Your task to perform on an android device: What's the weather going to be this weekend? Image 0: 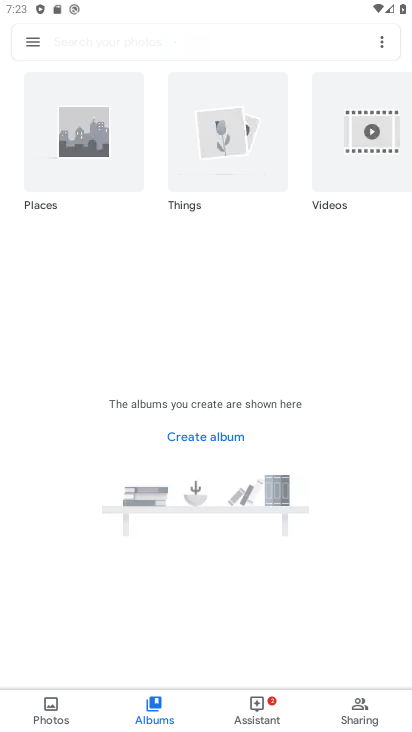
Step 0: press home button
Your task to perform on an android device: What's the weather going to be this weekend? Image 1: 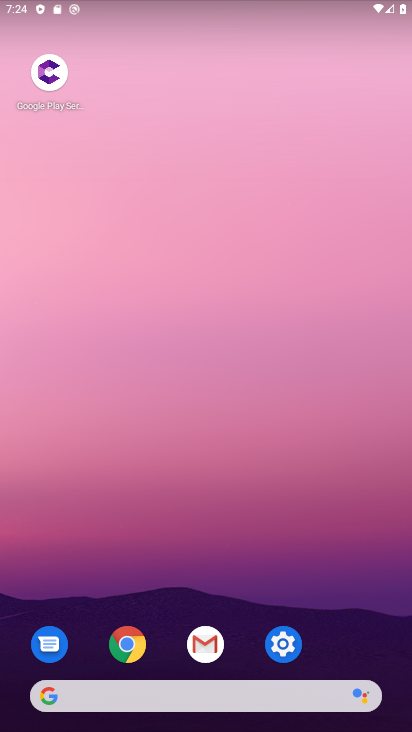
Step 1: click (149, 696)
Your task to perform on an android device: What's the weather going to be this weekend? Image 2: 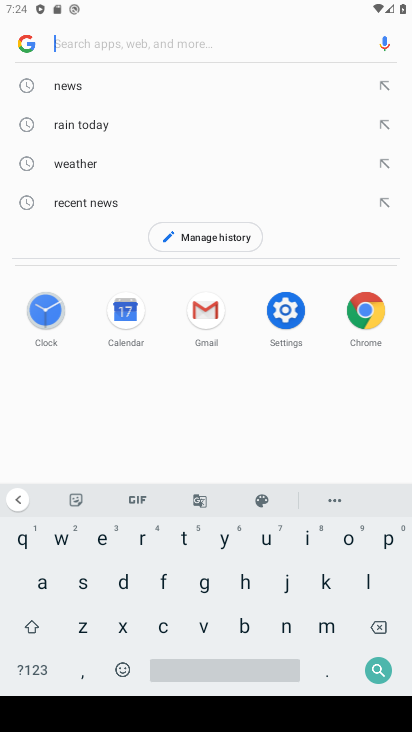
Step 2: click (76, 156)
Your task to perform on an android device: What's the weather going to be this weekend? Image 3: 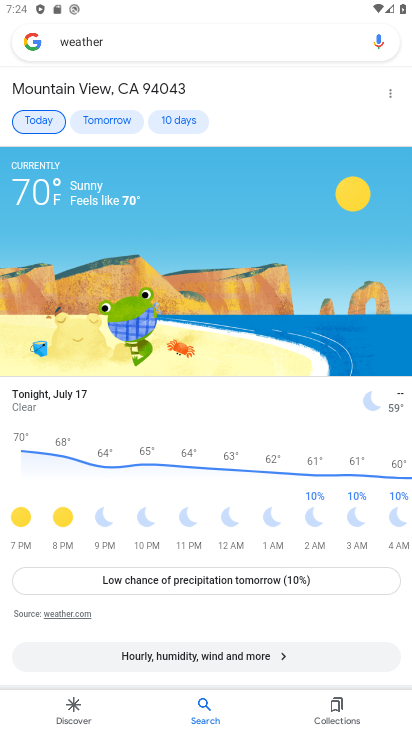
Step 3: click (160, 122)
Your task to perform on an android device: What's the weather going to be this weekend? Image 4: 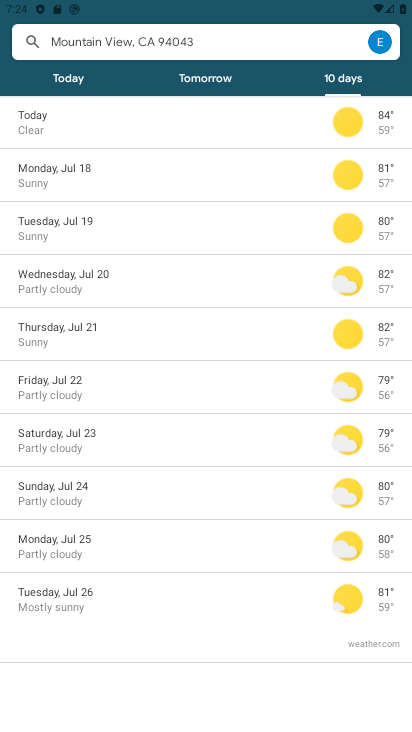
Step 4: task complete